Your task to perform on an android device: Open the calendar app, open the side menu, and click the "Day" option Image 0: 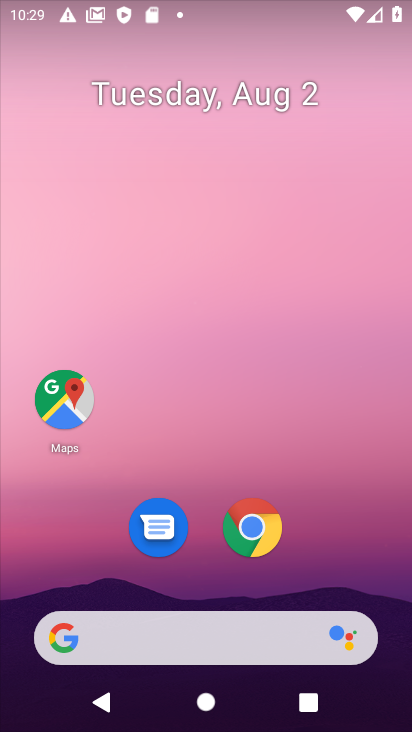
Step 0: press home button
Your task to perform on an android device: Open the calendar app, open the side menu, and click the "Day" option Image 1: 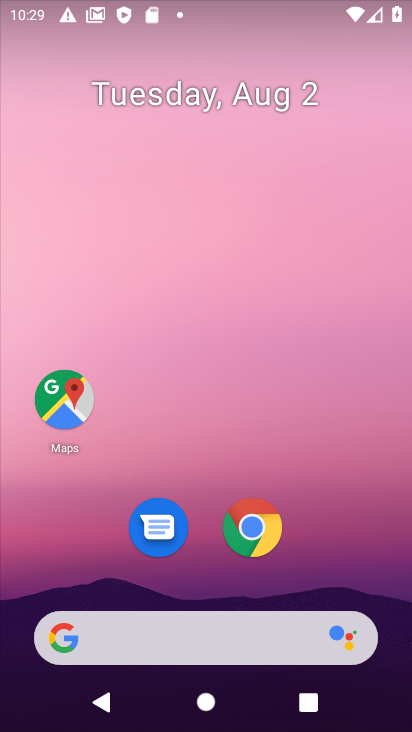
Step 1: press home button
Your task to perform on an android device: Open the calendar app, open the side menu, and click the "Day" option Image 2: 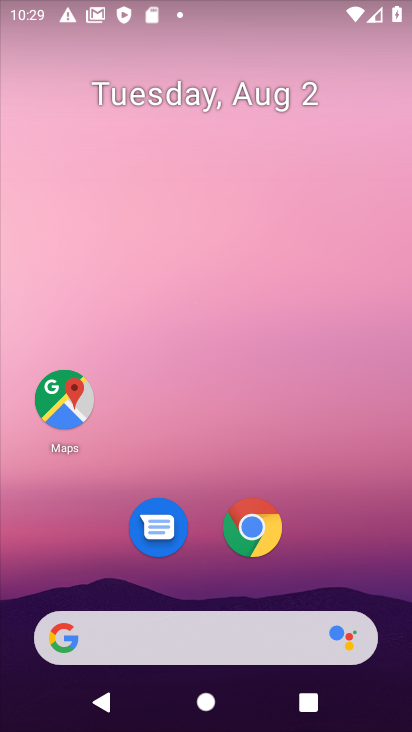
Step 2: drag from (203, 570) to (202, 11)
Your task to perform on an android device: Open the calendar app, open the side menu, and click the "Day" option Image 3: 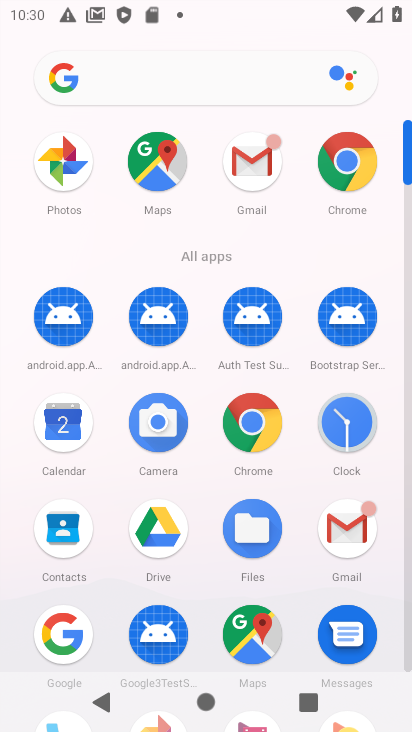
Step 3: click (61, 414)
Your task to perform on an android device: Open the calendar app, open the side menu, and click the "Day" option Image 4: 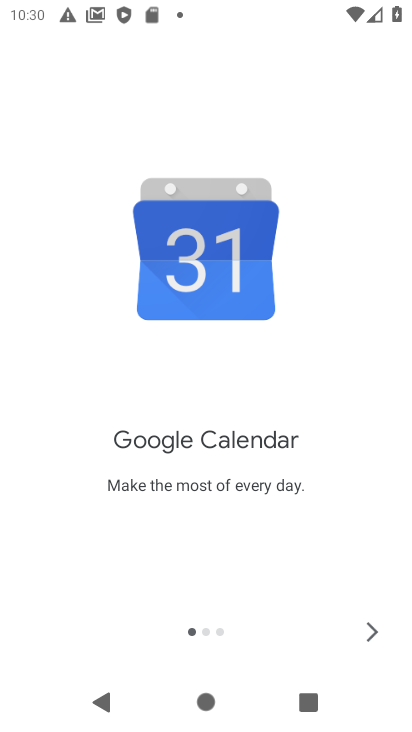
Step 4: click (365, 625)
Your task to perform on an android device: Open the calendar app, open the side menu, and click the "Day" option Image 5: 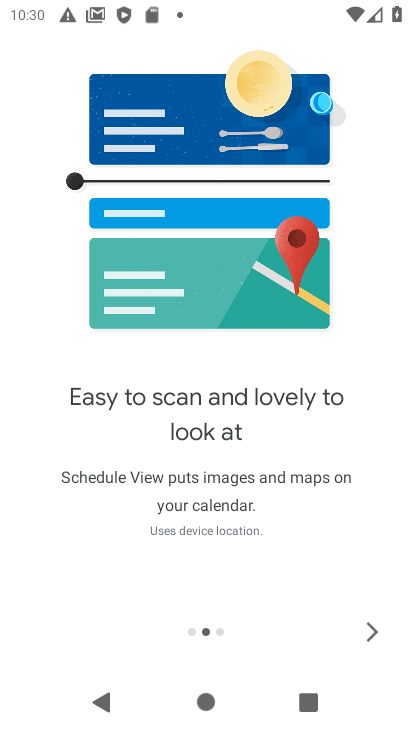
Step 5: click (365, 625)
Your task to perform on an android device: Open the calendar app, open the side menu, and click the "Day" option Image 6: 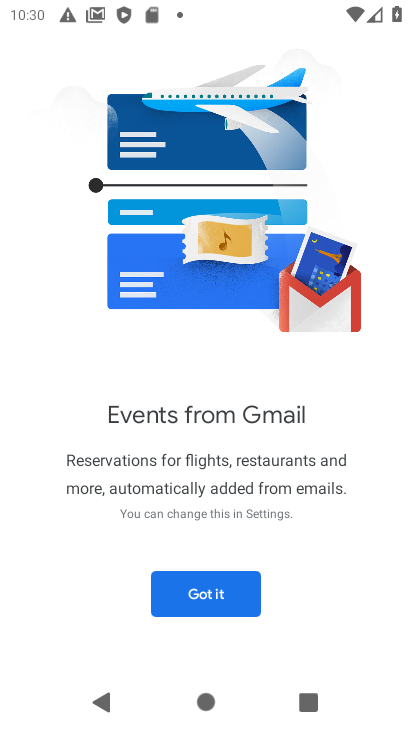
Step 6: click (208, 598)
Your task to perform on an android device: Open the calendar app, open the side menu, and click the "Day" option Image 7: 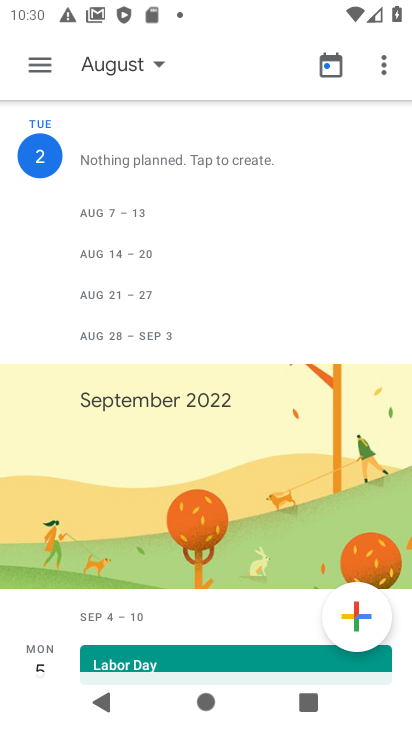
Step 7: click (45, 66)
Your task to perform on an android device: Open the calendar app, open the side menu, and click the "Day" option Image 8: 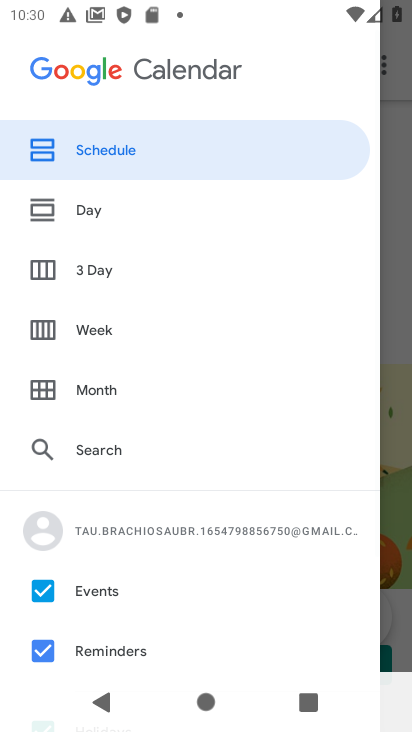
Step 8: click (114, 207)
Your task to perform on an android device: Open the calendar app, open the side menu, and click the "Day" option Image 9: 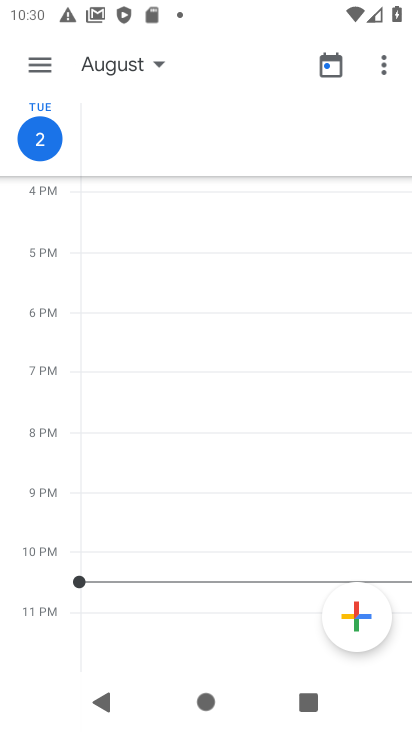
Step 9: task complete